Your task to perform on an android device: Open the phone app and click the voicemail tab. Image 0: 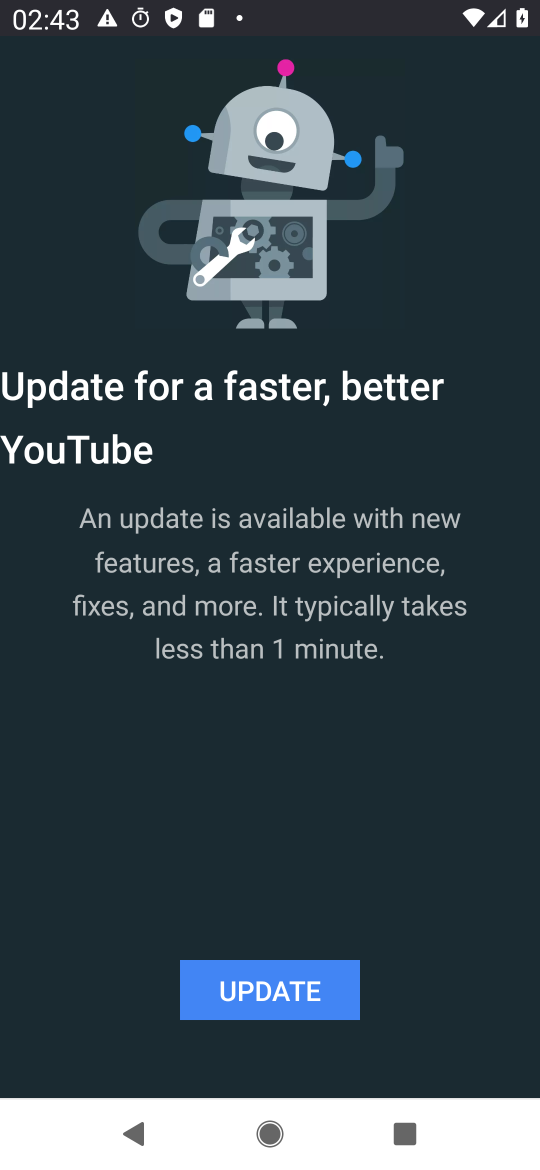
Step 0: press home button
Your task to perform on an android device: Open the phone app and click the voicemail tab. Image 1: 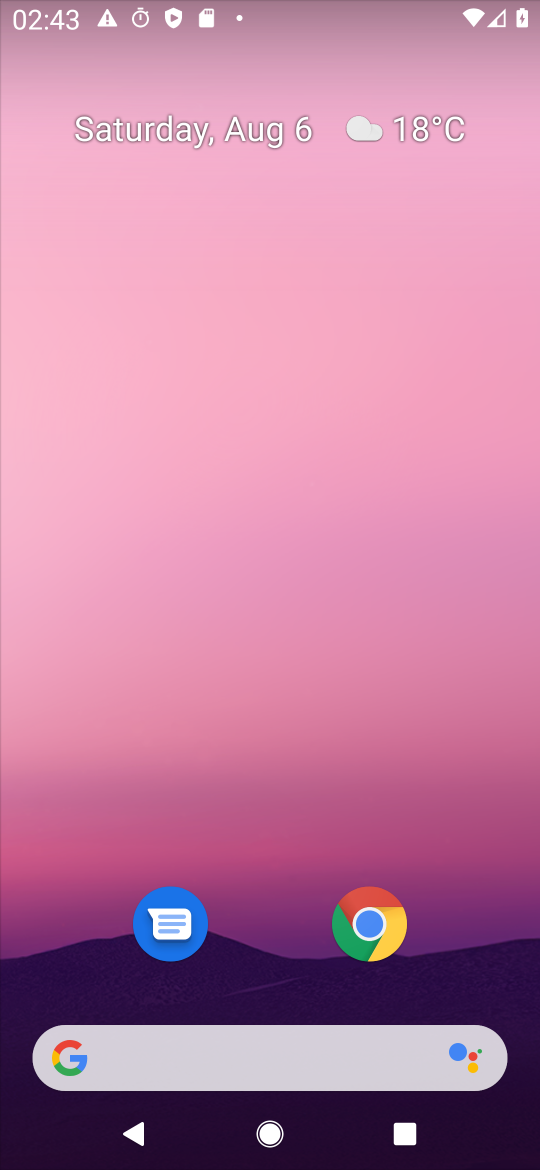
Step 1: drag from (189, 577) to (173, 43)
Your task to perform on an android device: Open the phone app and click the voicemail tab. Image 2: 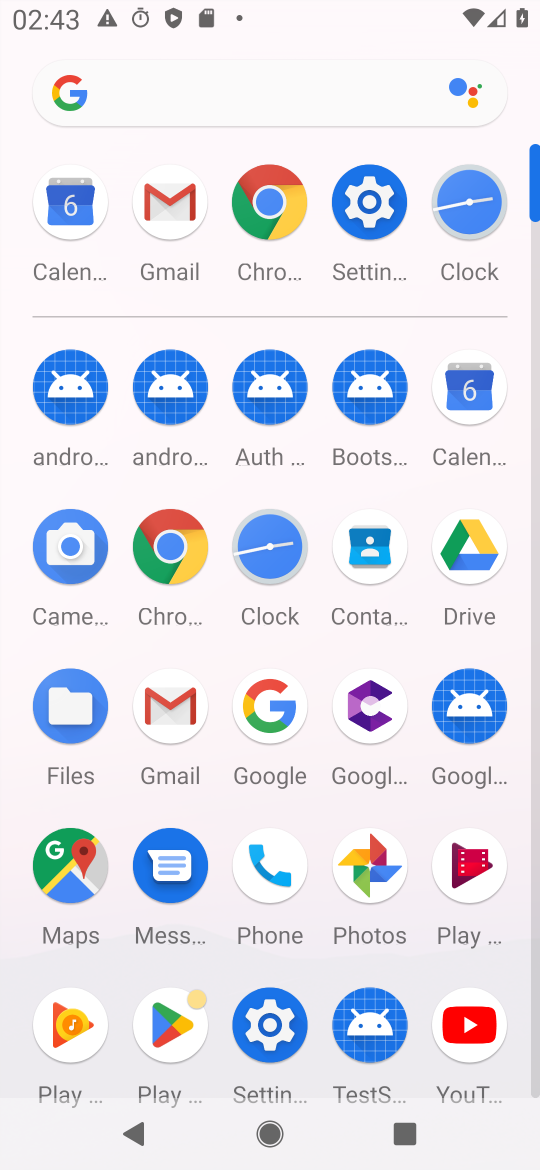
Step 2: click (268, 873)
Your task to perform on an android device: Open the phone app and click the voicemail tab. Image 3: 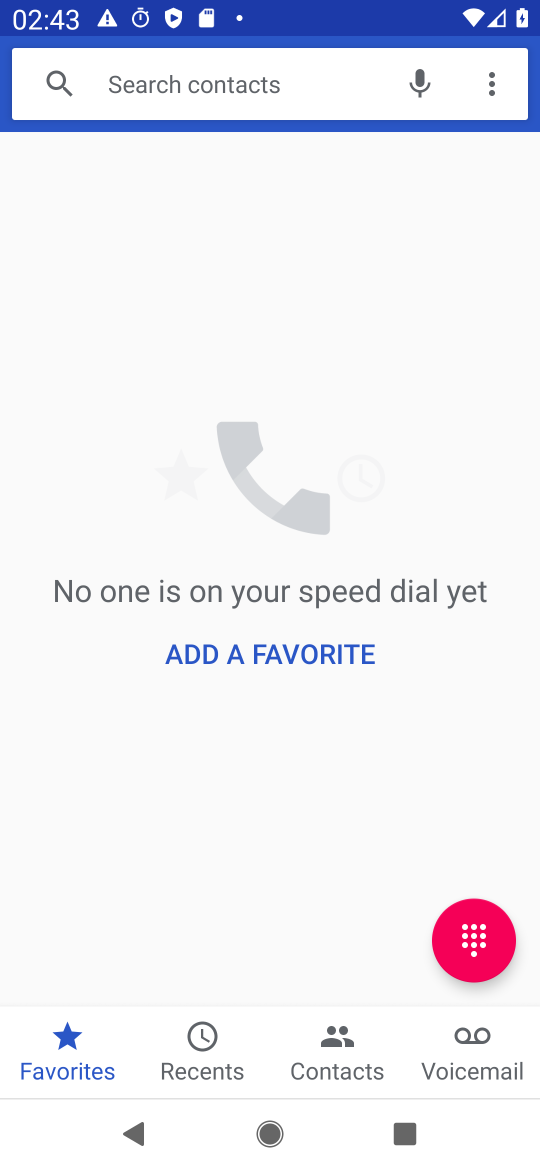
Step 3: click (490, 1051)
Your task to perform on an android device: Open the phone app and click the voicemail tab. Image 4: 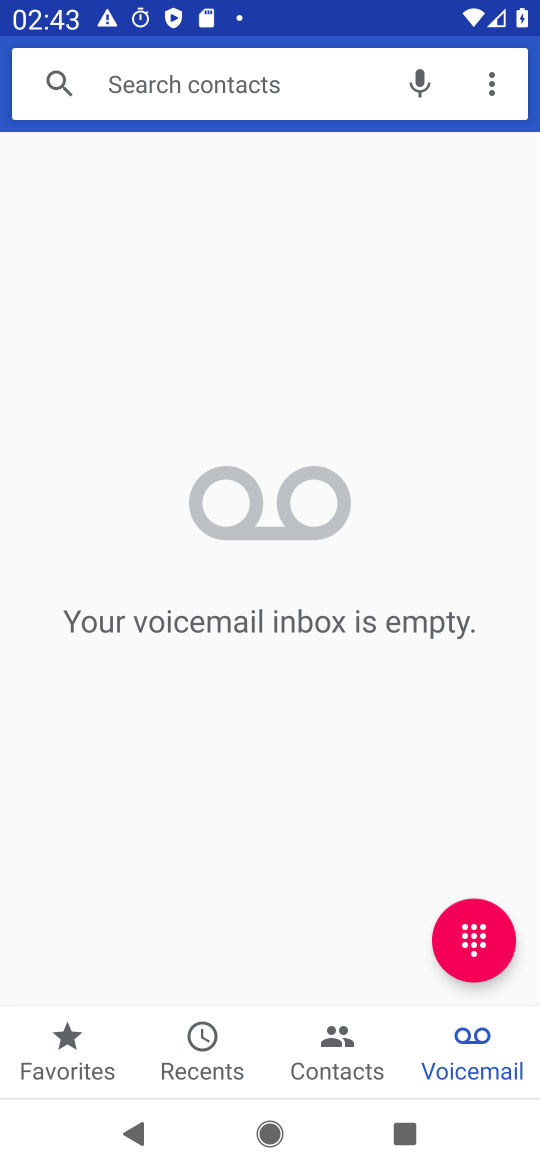
Step 4: task complete